Your task to perform on an android device: Search for seafood restaurants on Google Maps Image 0: 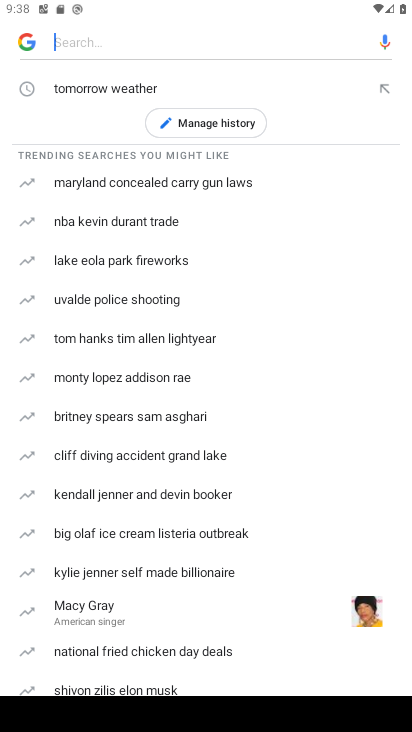
Step 0: press home button
Your task to perform on an android device: Search for seafood restaurants on Google Maps Image 1: 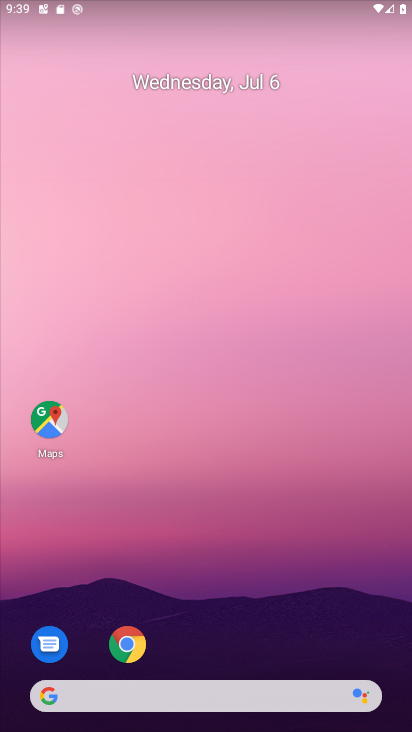
Step 1: drag from (243, 612) to (301, 27)
Your task to perform on an android device: Search for seafood restaurants on Google Maps Image 2: 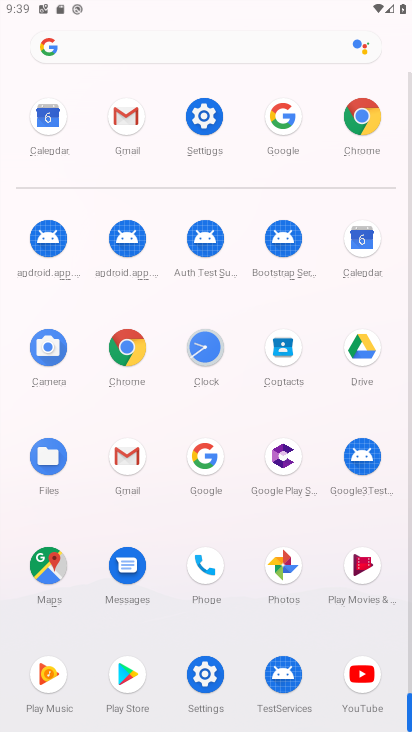
Step 2: click (47, 581)
Your task to perform on an android device: Search for seafood restaurants on Google Maps Image 3: 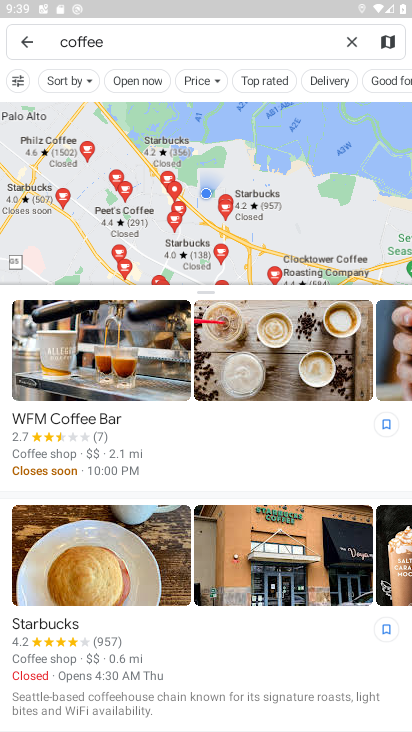
Step 3: click (234, 48)
Your task to perform on an android device: Search for seafood restaurants on Google Maps Image 4: 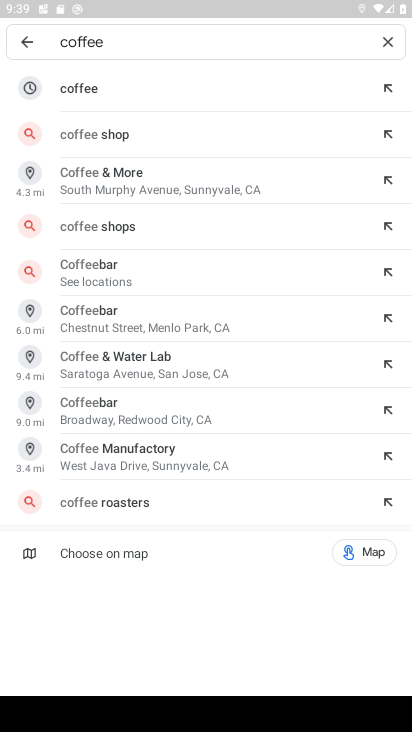
Step 4: click (387, 46)
Your task to perform on an android device: Search for seafood restaurants on Google Maps Image 5: 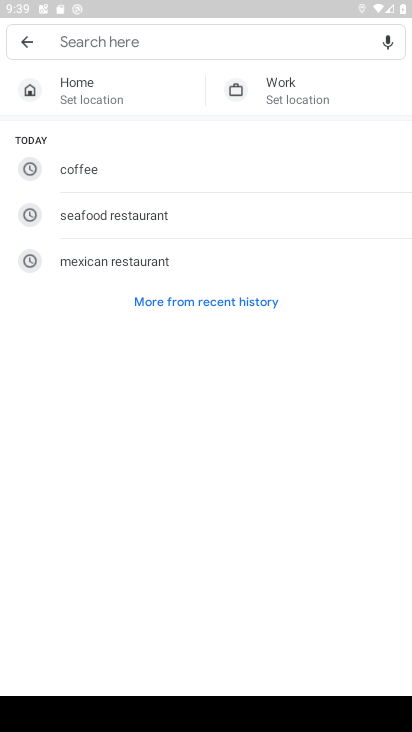
Step 5: click (83, 219)
Your task to perform on an android device: Search for seafood restaurants on Google Maps Image 6: 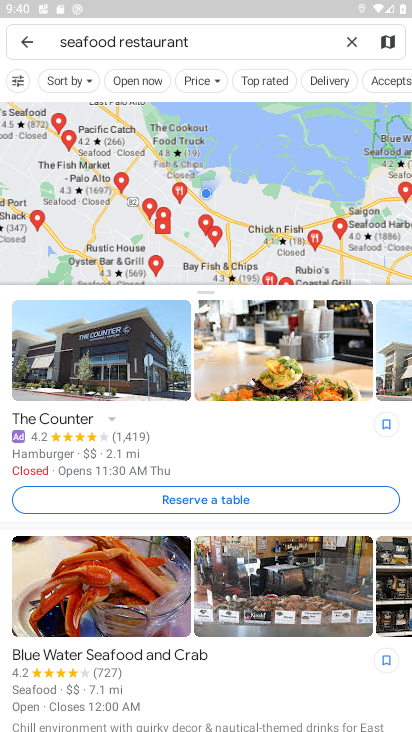
Step 6: task complete